Your task to perform on an android device: Open internet settings Image 0: 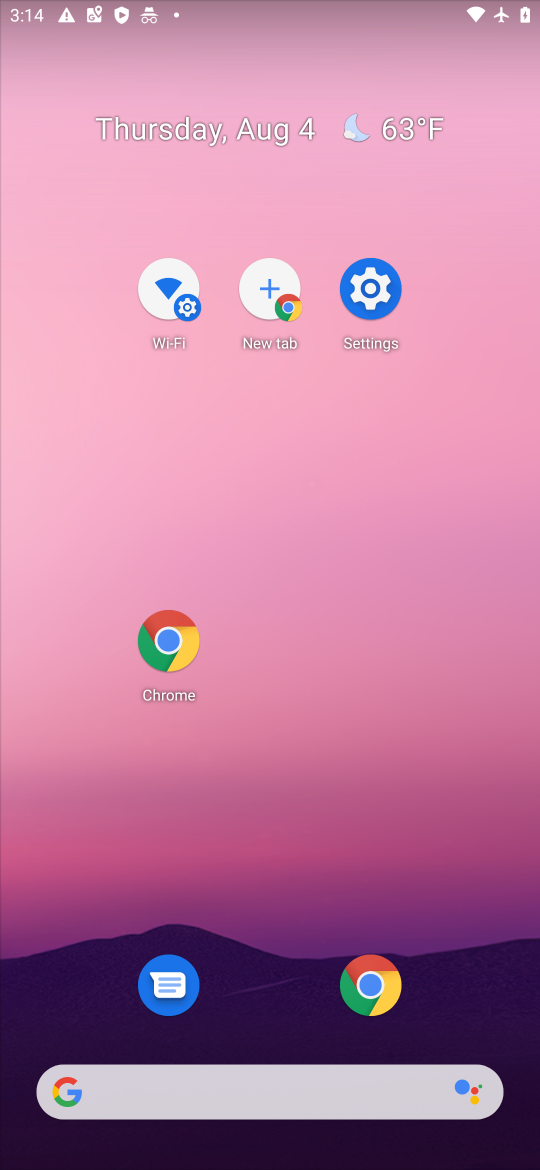
Step 0: drag from (287, 719) to (259, 411)
Your task to perform on an android device: Open internet settings Image 1: 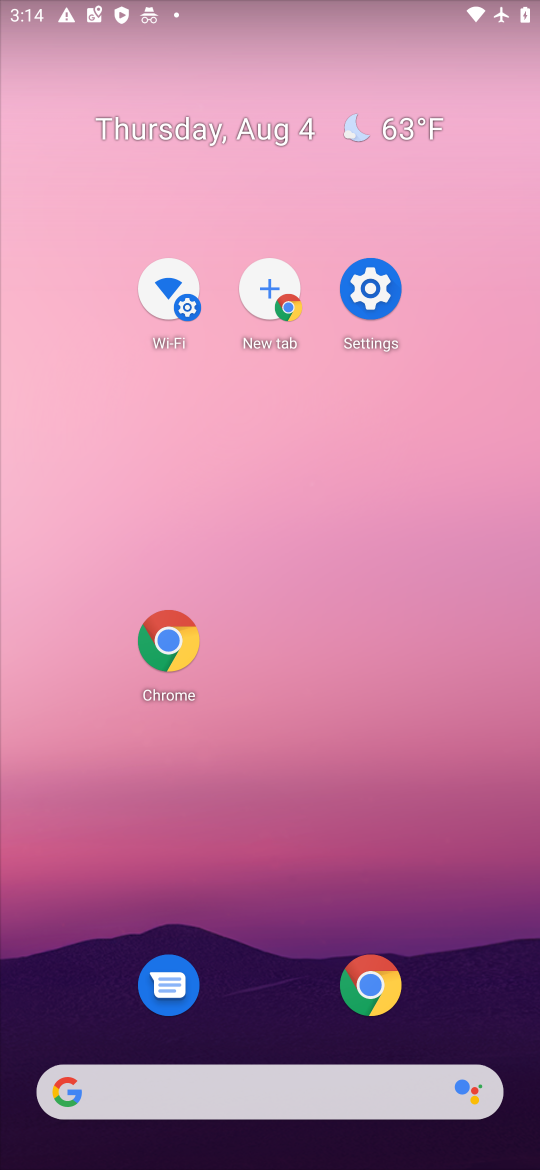
Step 1: drag from (264, 874) to (228, 622)
Your task to perform on an android device: Open internet settings Image 2: 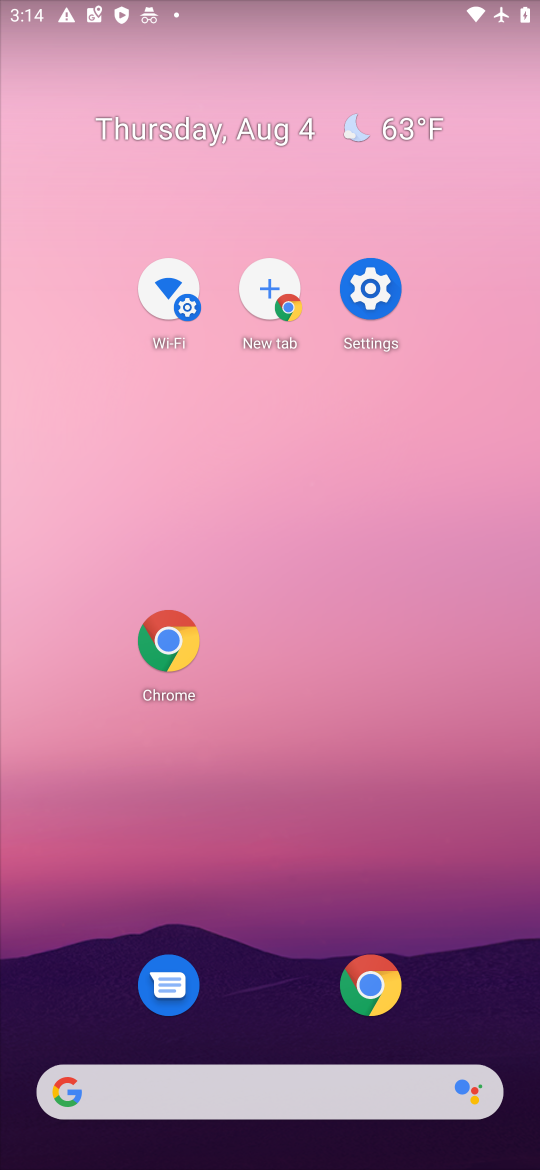
Step 2: drag from (219, 688) to (167, 249)
Your task to perform on an android device: Open internet settings Image 3: 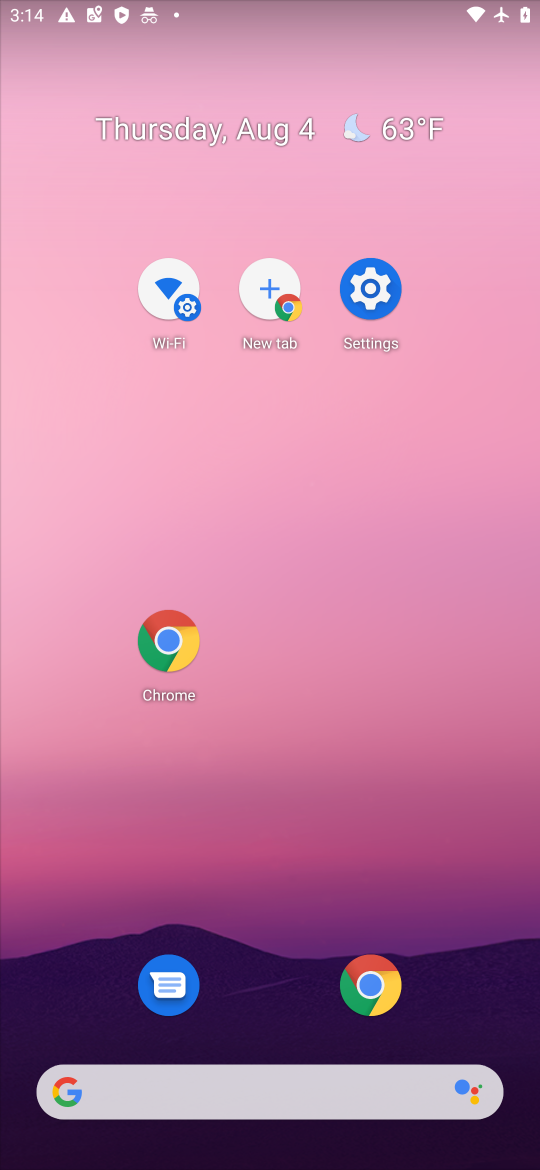
Step 3: drag from (249, 910) to (202, 597)
Your task to perform on an android device: Open internet settings Image 4: 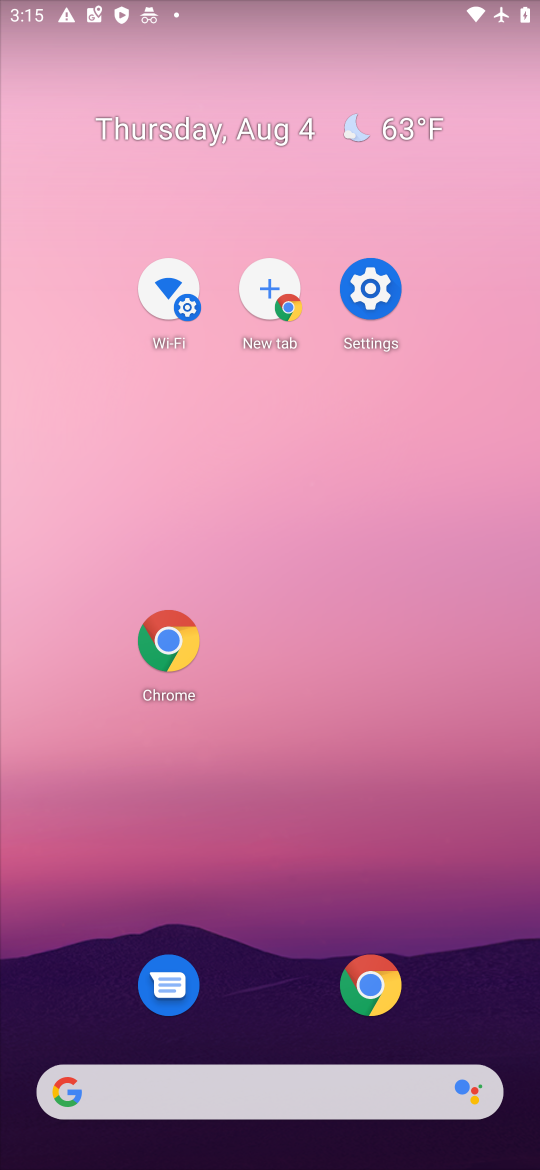
Step 4: drag from (239, 976) to (77, 104)
Your task to perform on an android device: Open internet settings Image 5: 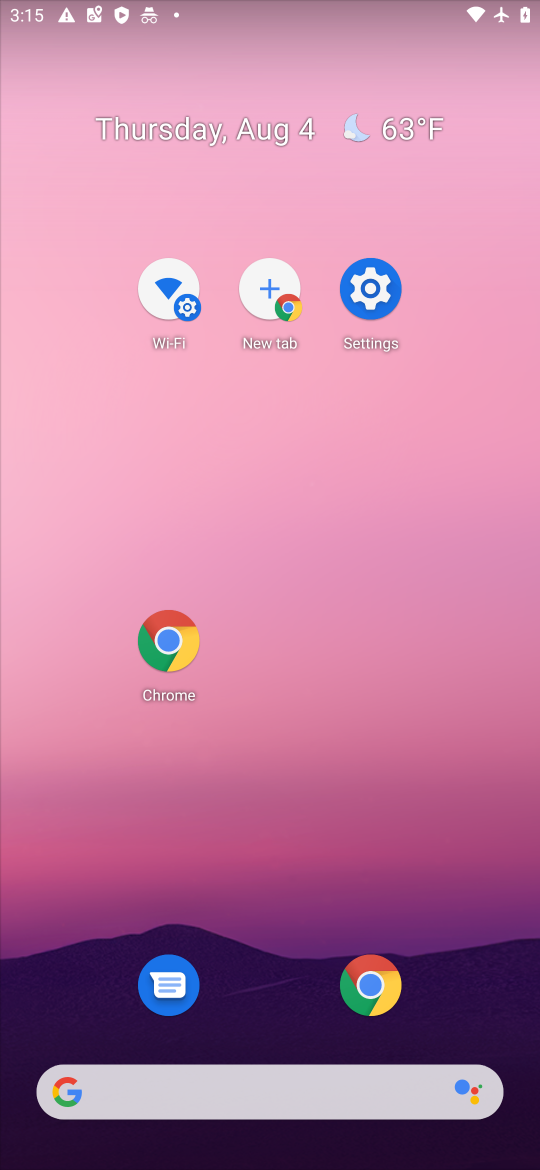
Step 5: drag from (259, 759) to (157, 80)
Your task to perform on an android device: Open internet settings Image 6: 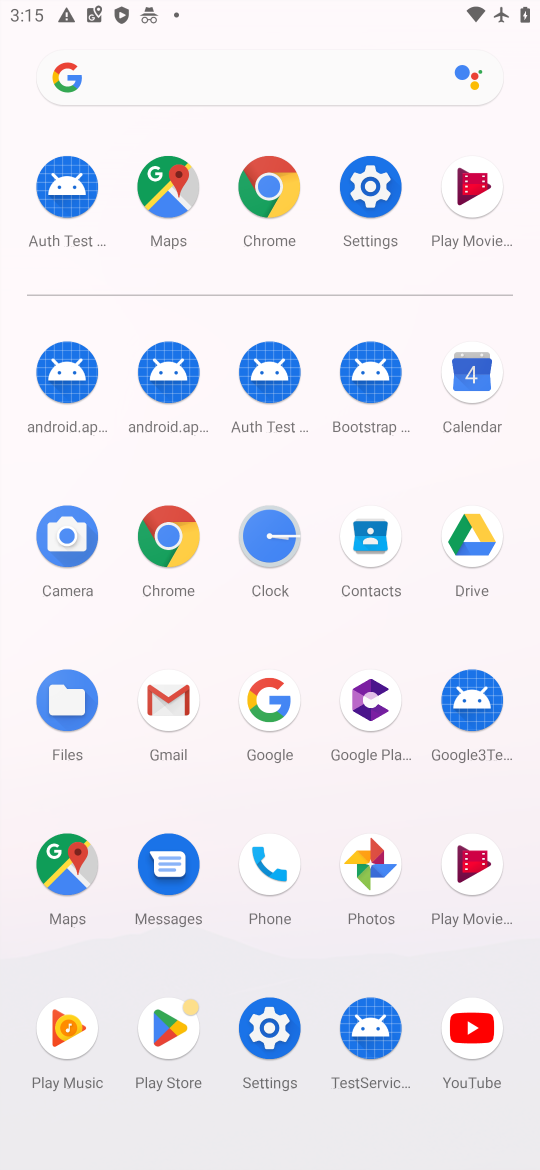
Step 6: click (260, 1034)
Your task to perform on an android device: Open internet settings Image 7: 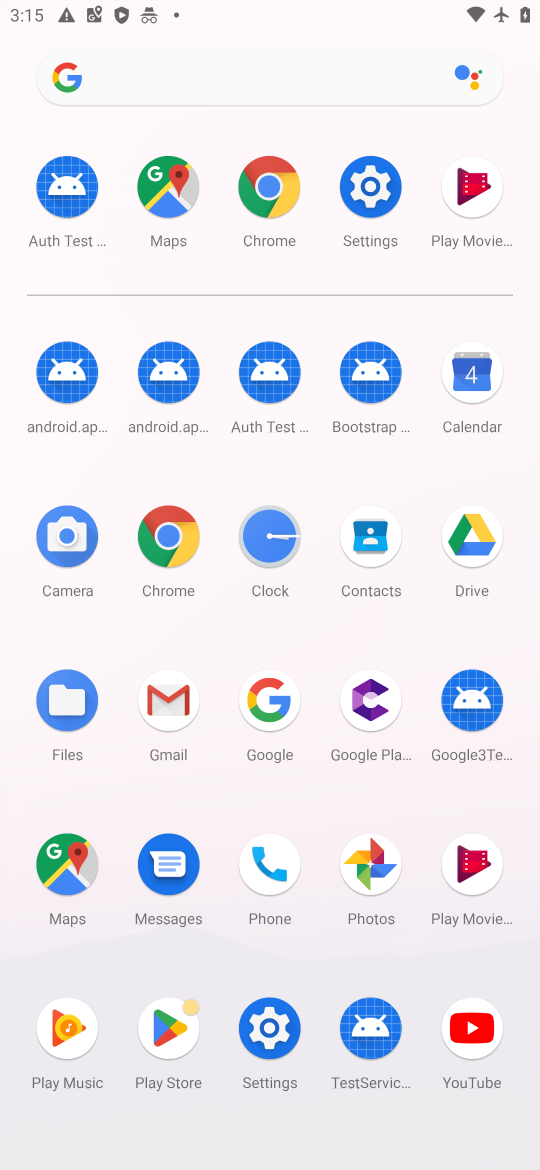
Step 7: click (260, 1032)
Your task to perform on an android device: Open internet settings Image 8: 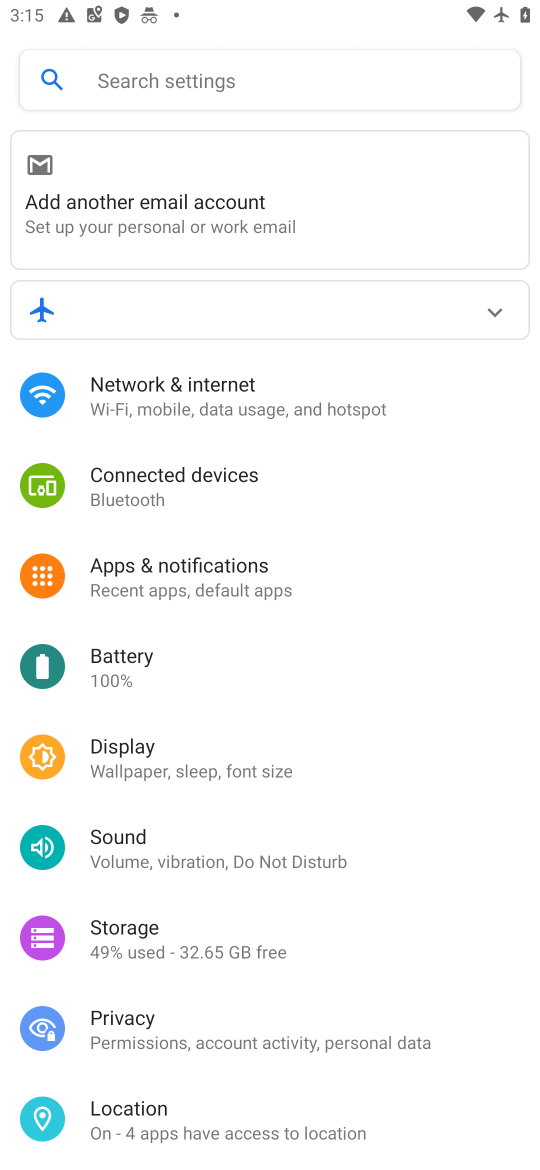
Step 8: click (143, 386)
Your task to perform on an android device: Open internet settings Image 9: 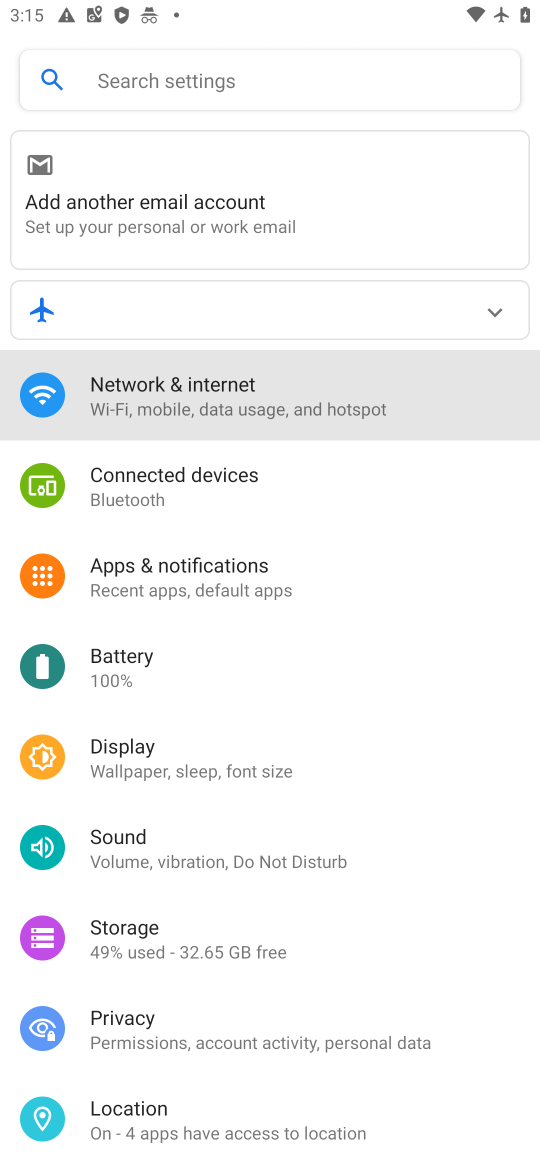
Step 9: click (144, 389)
Your task to perform on an android device: Open internet settings Image 10: 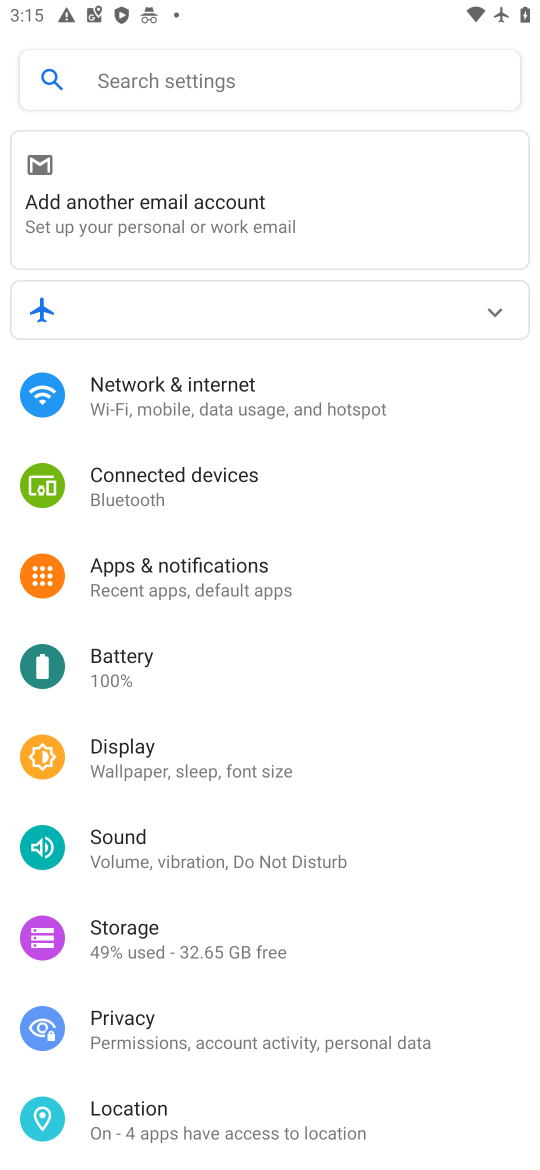
Step 10: click (146, 391)
Your task to perform on an android device: Open internet settings Image 11: 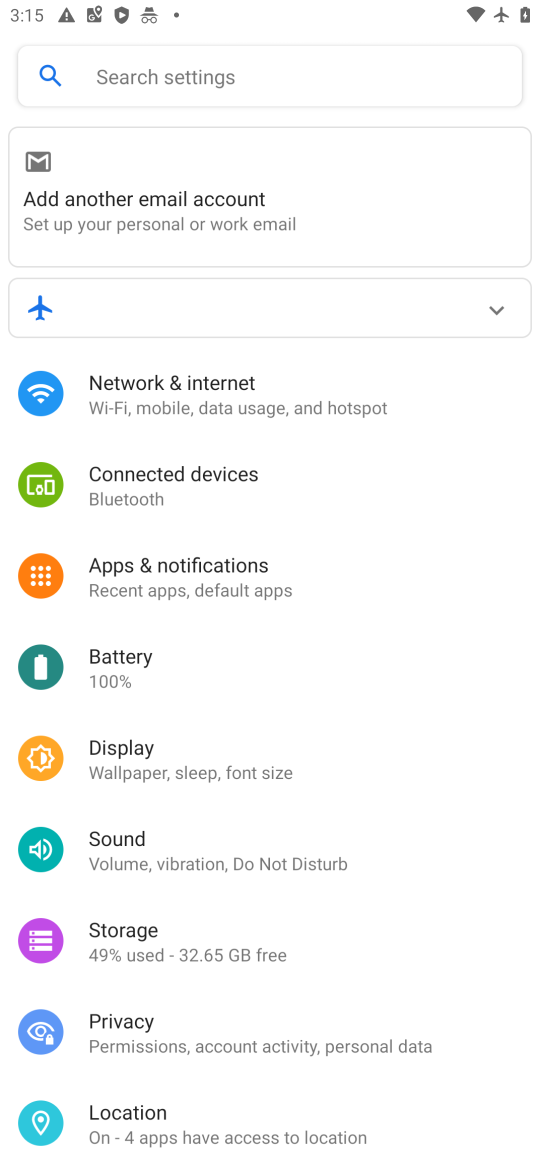
Step 11: click (146, 394)
Your task to perform on an android device: Open internet settings Image 12: 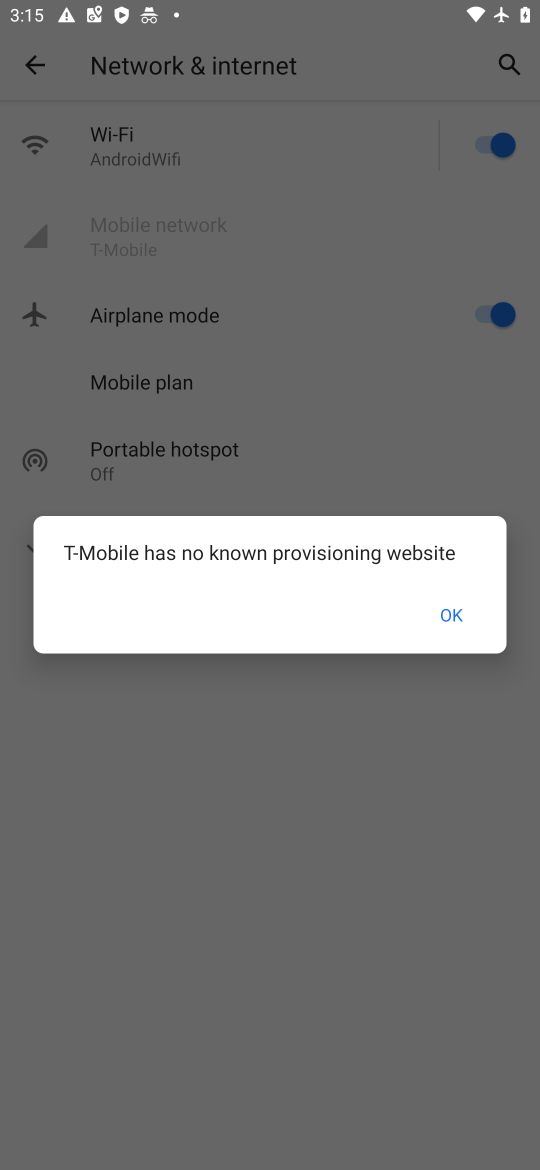
Step 12: click (459, 609)
Your task to perform on an android device: Open internet settings Image 13: 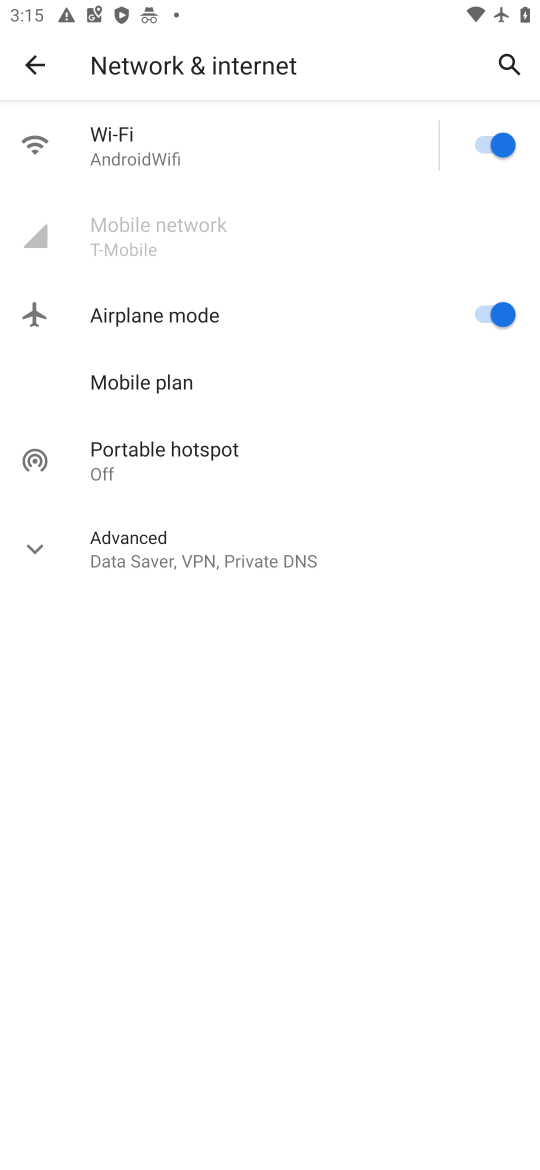
Step 13: task complete